Your task to perform on an android device: turn on sleep mode Image 0: 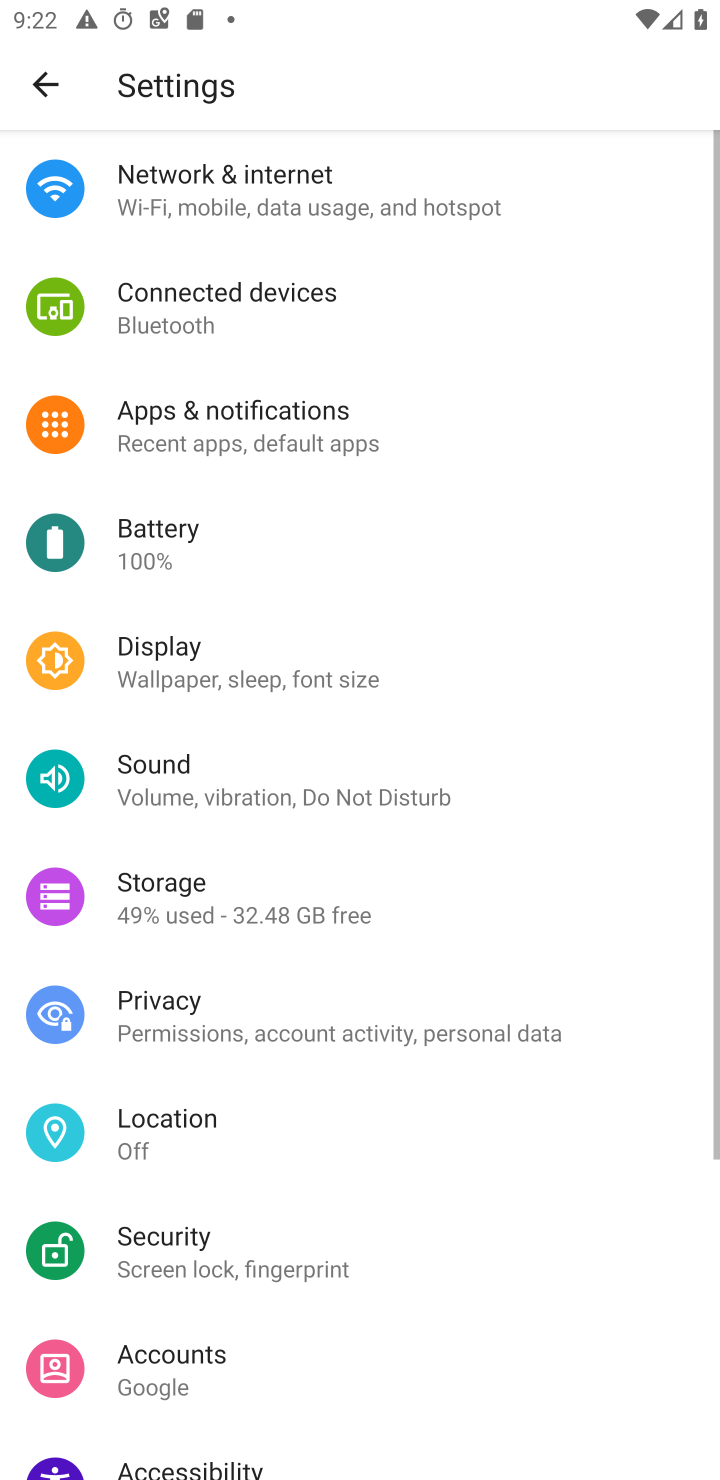
Step 0: press home button
Your task to perform on an android device: turn on sleep mode Image 1: 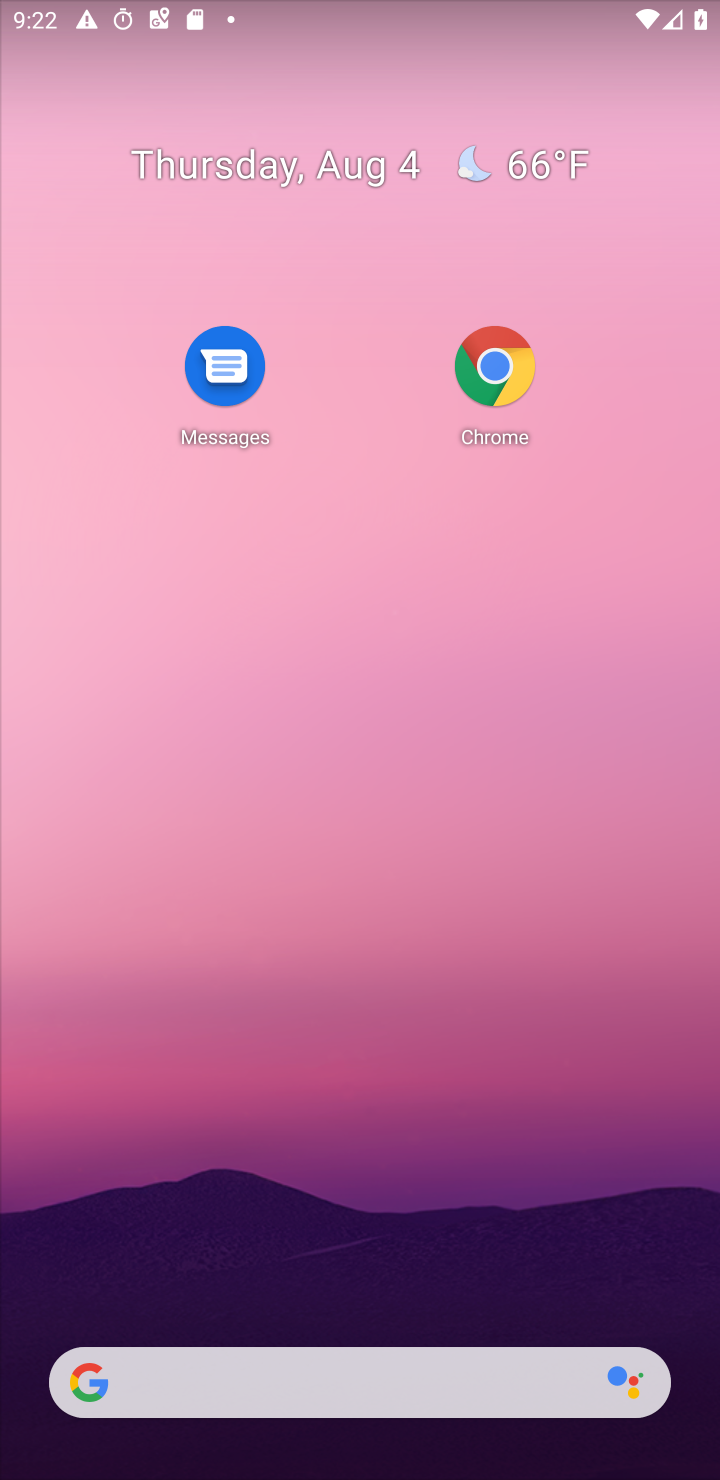
Step 1: drag from (340, 1415) to (422, 480)
Your task to perform on an android device: turn on sleep mode Image 2: 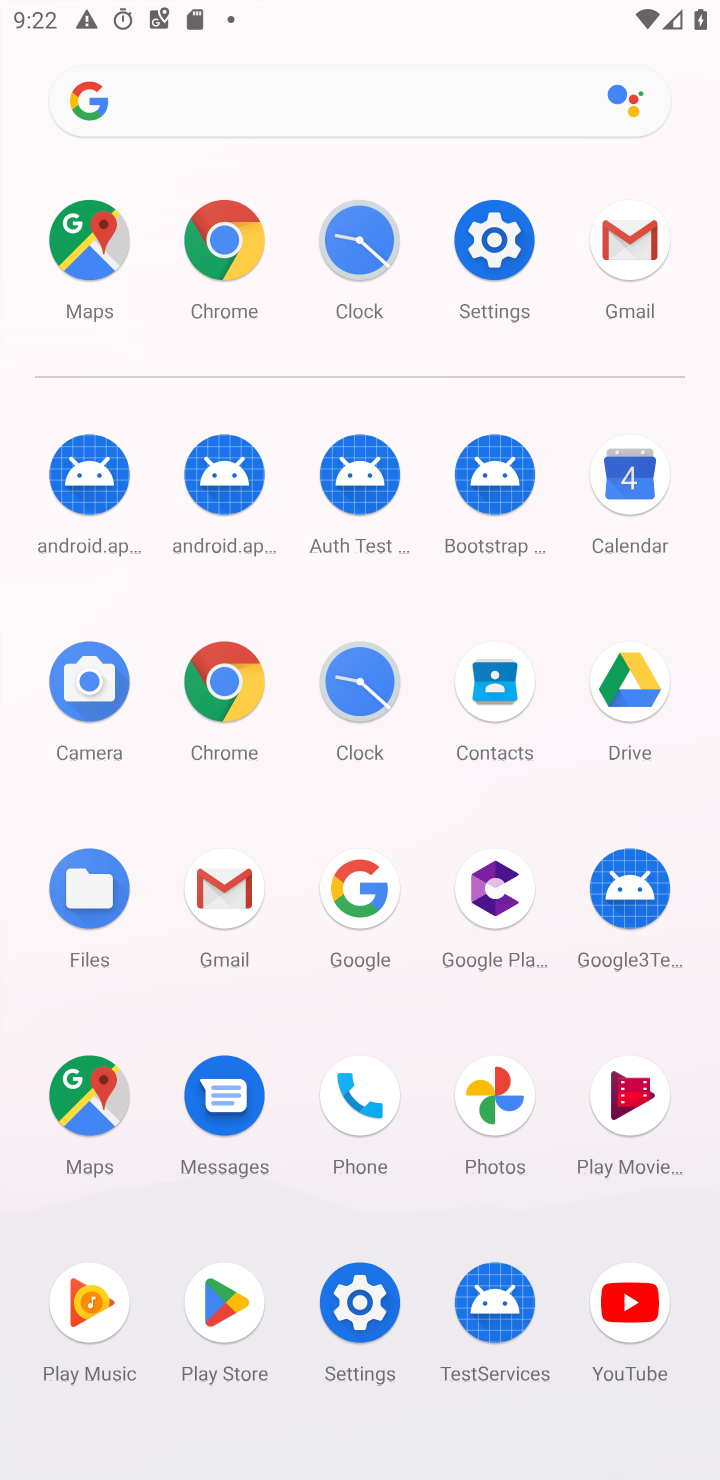
Step 2: click (493, 271)
Your task to perform on an android device: turn on sleep mode Image 3: 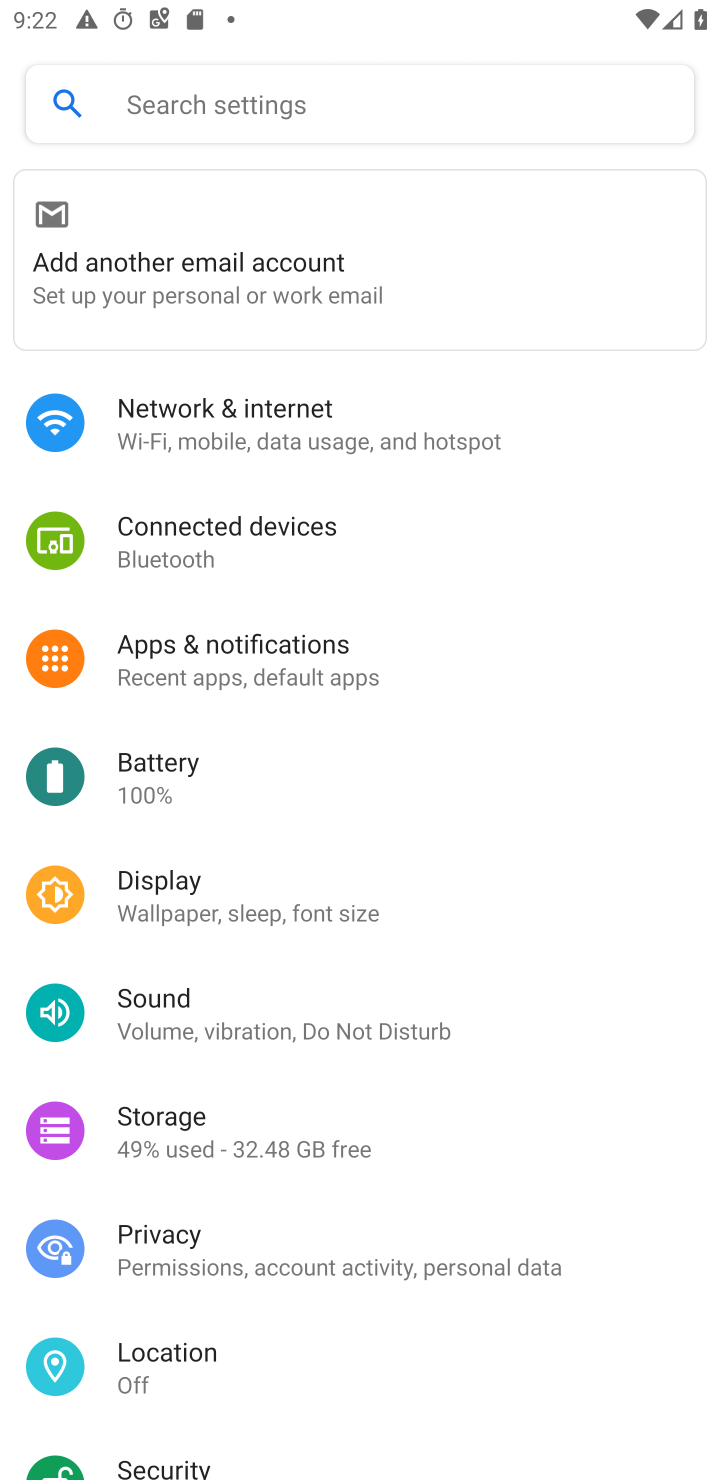
Step 3: click (299, 91)
Your task to perform on an android device: turn on sleep mode Image 4: 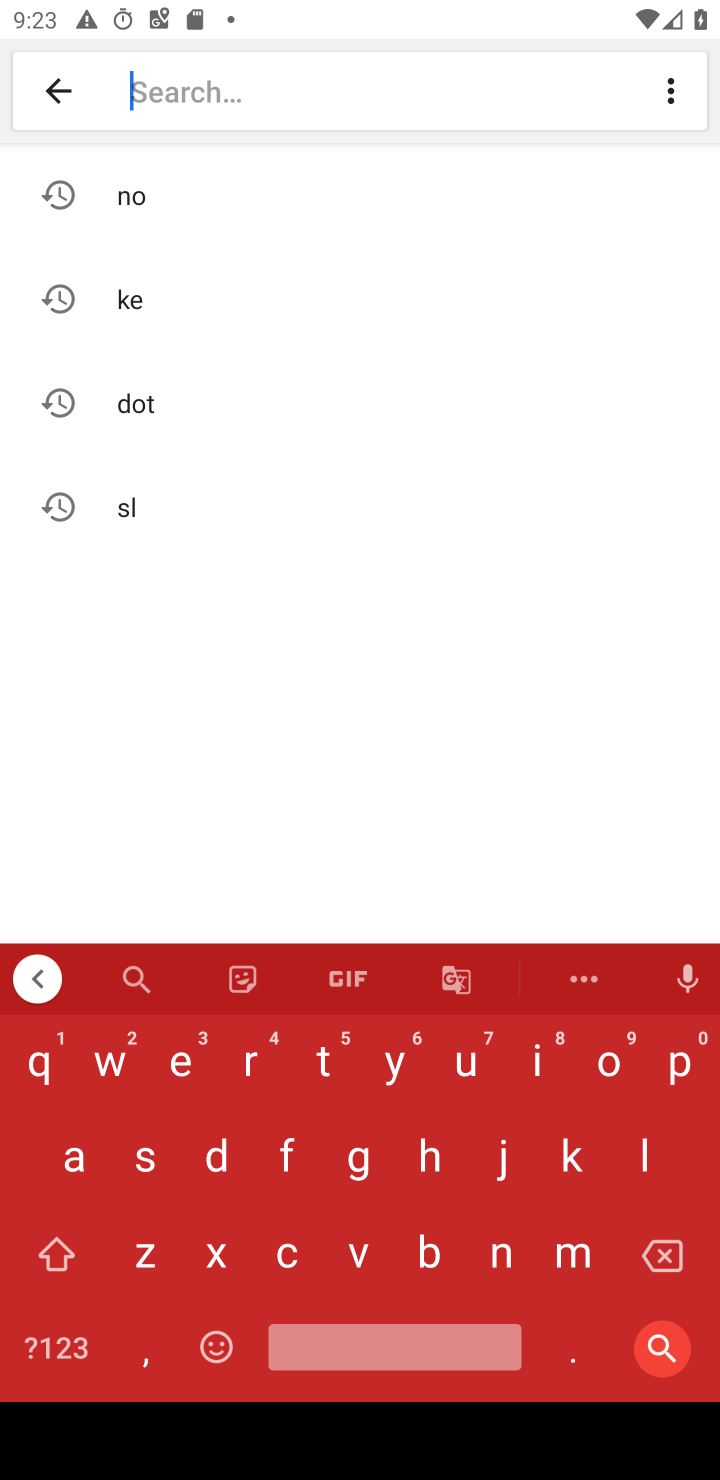
Step 4: click (128, 1174)
Your task to perform on an android device: turn on sleep mode Image 5: 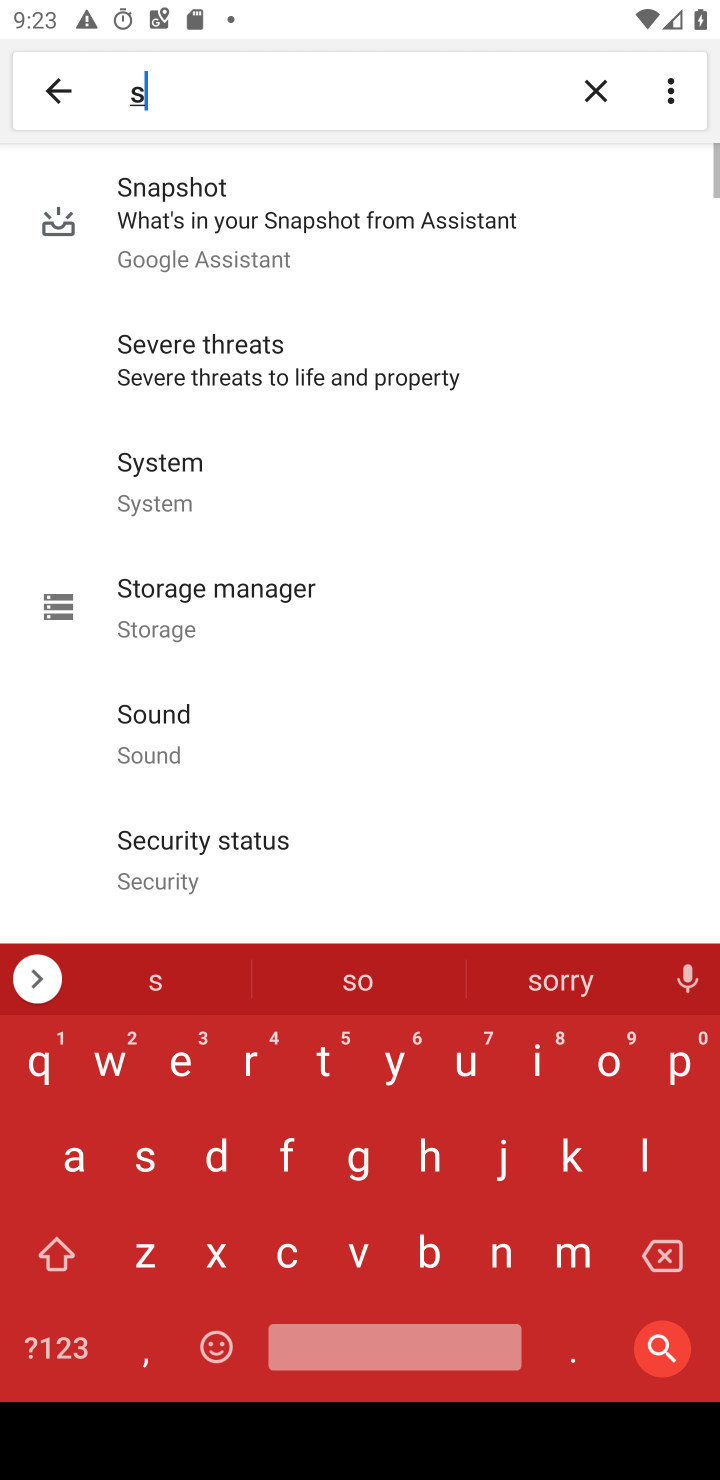
Step 5: click (638, 1171)
Your task to perform on an android device: turn on sleep mode Image 6: 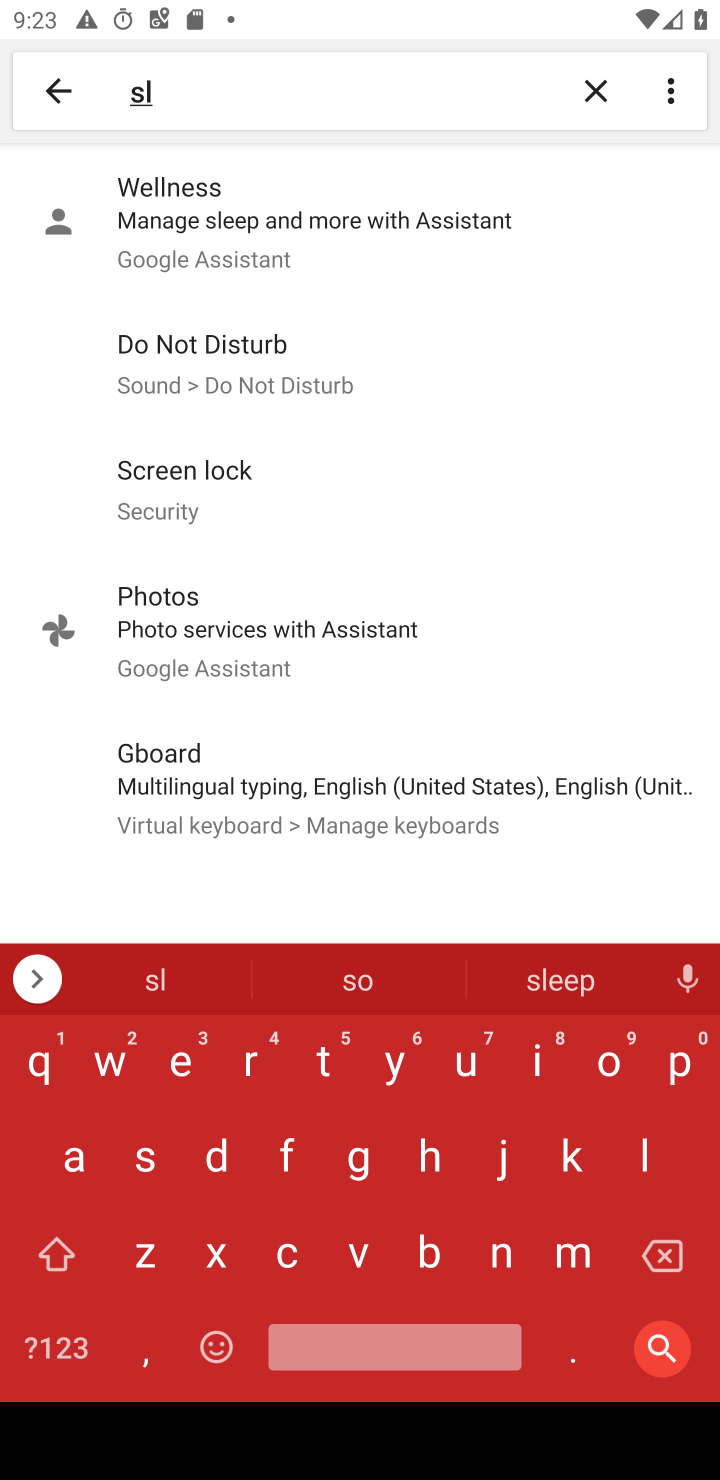
Step 6: click (266, 383)
Your task to perform on an android device: turn on sleep mode Image 7: 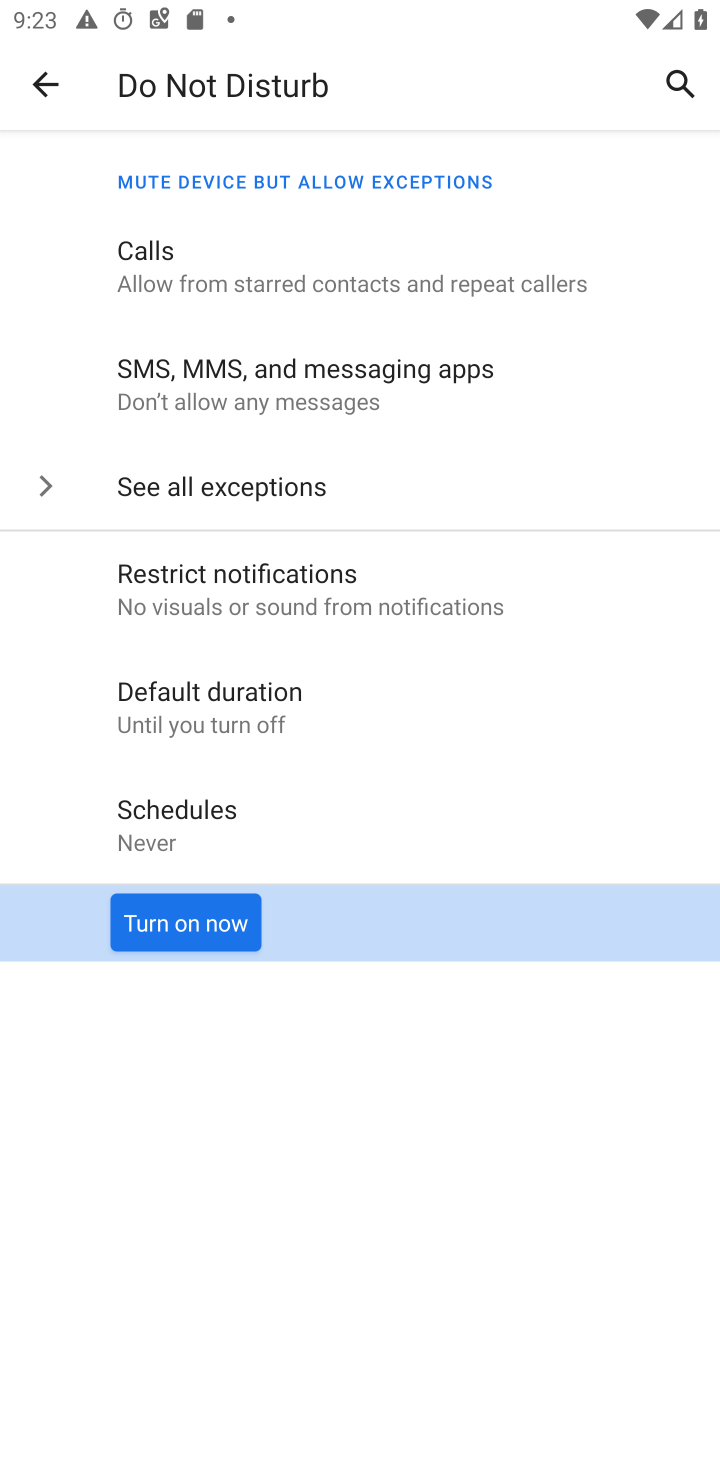
Step 7: click (144, 918)
Your task to perform on an android device: turn on sleep mode Image 8: 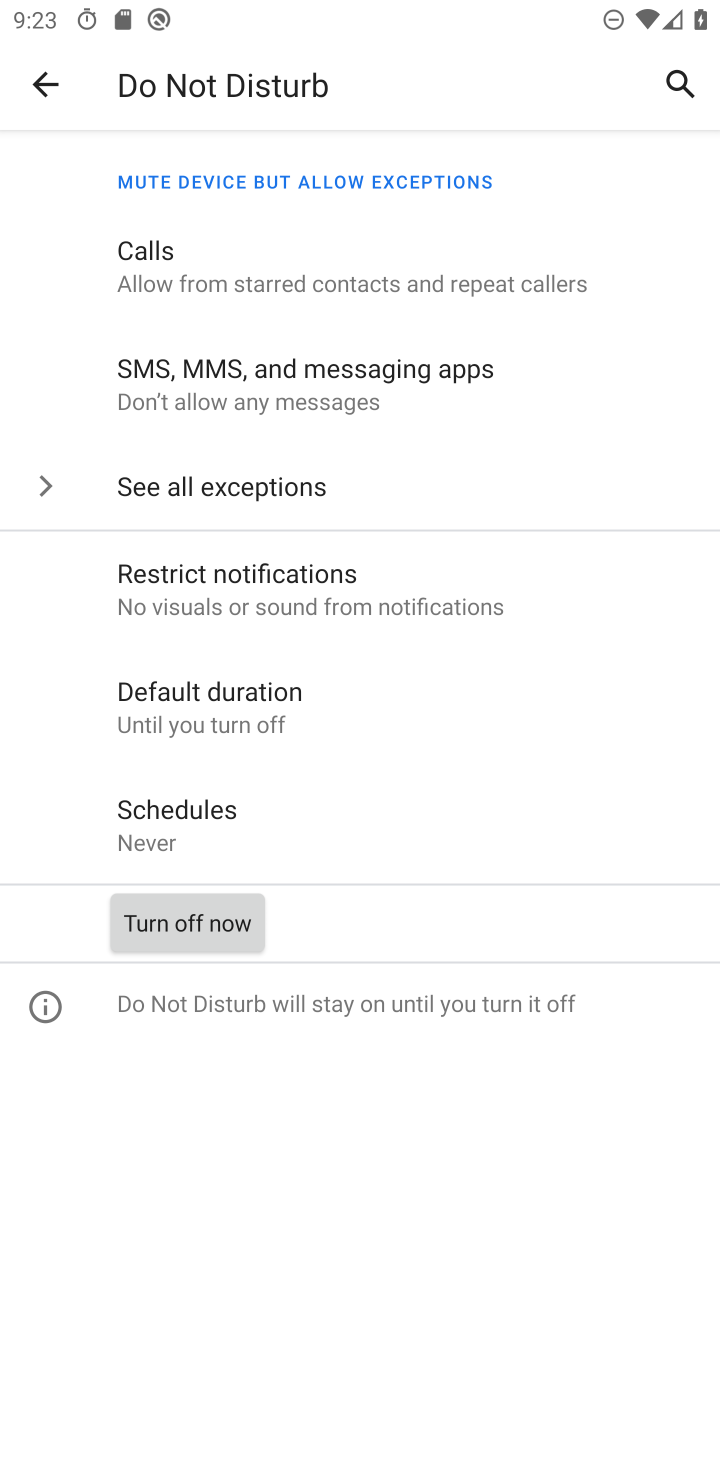
Step 8: task complete